Your task to perform on an android device: turn off location Image 0: 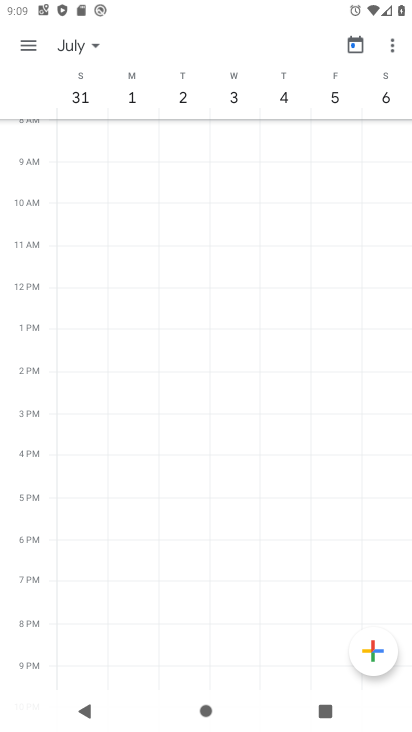
Step 0: press home button
Your task to perform on an android device: turn off location Image 1: 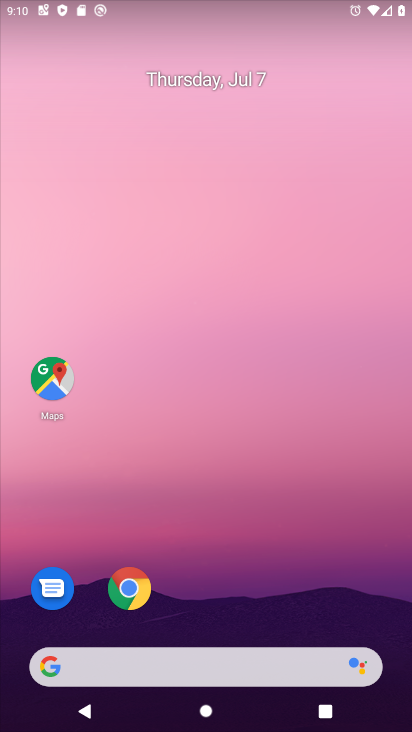
Step 1: click (47, 374)
Your task to perform on an android device: turn off location Image 2: 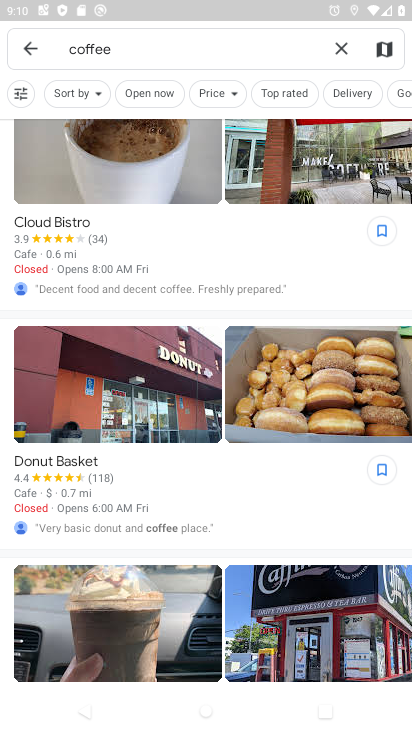
Step 2: press home button
Your task to perform on an android device: turn off location Image 3: 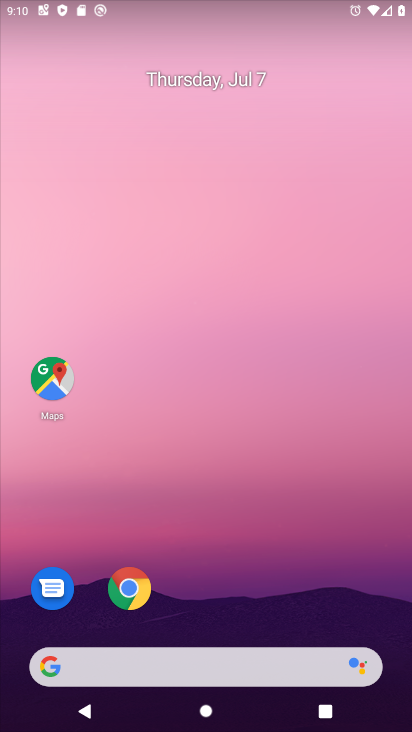
Step 3: drag from (261, 624) to (251, 161)
Your task to perform on an android device: turn off location Image 4: 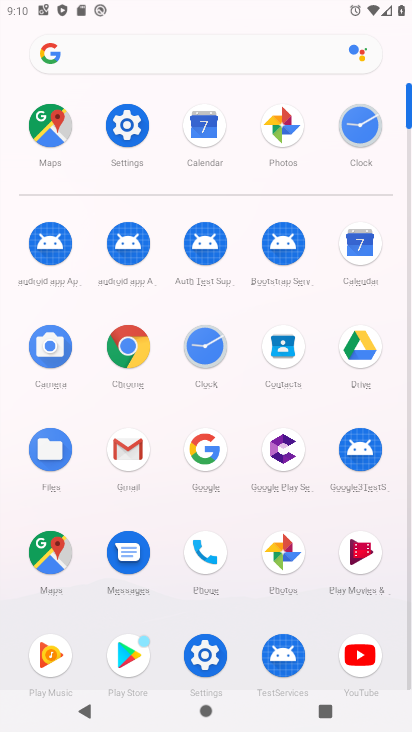
Step 4: click (203, 654)
Your task to perform on an android device: turn off location Image 5: 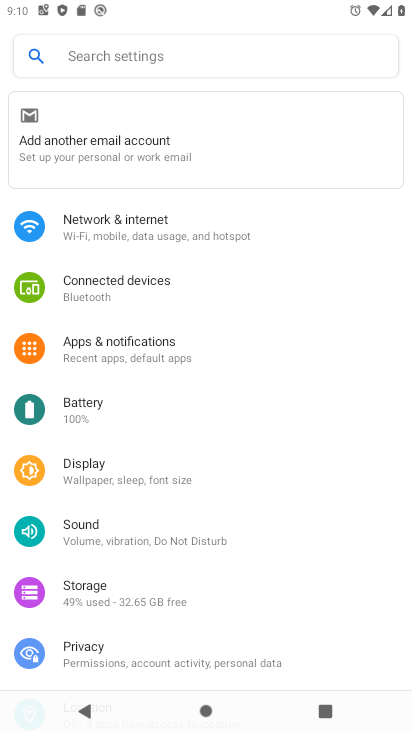
Step 5: drag from (155, 645) to (158, 248)
Your task to perform on an android device: turn off location Image 6: 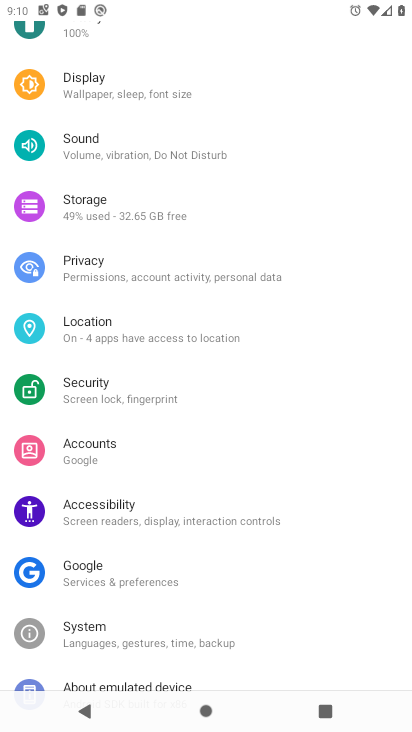
Step 6: click (119, 317)
Your task to perform on an android device: turn off location Image 7: 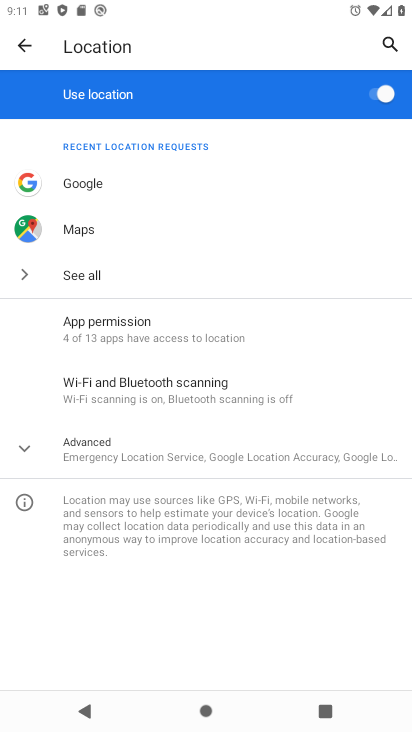
Step 7: click (375, 94)
Your task to perform on an android device: turn off location Image 8: 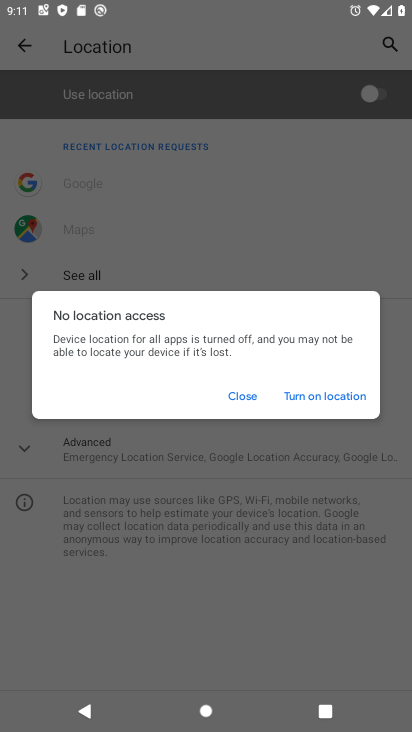
Step 8: click (240, 394)
Your task to perform on an android device: turn off location Image 9: 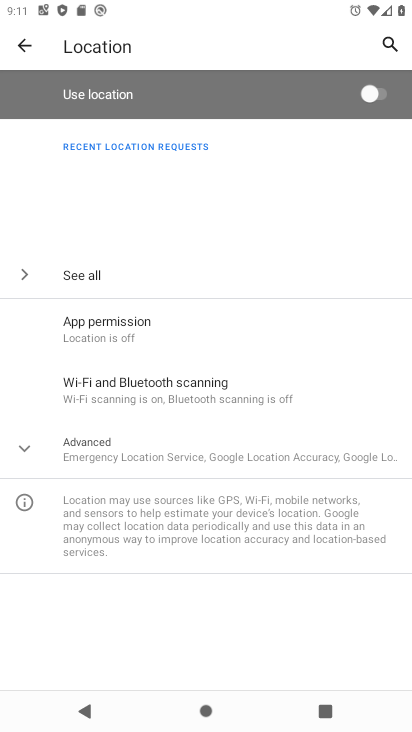
Step 9: task complete